Your task to perform on an android device: find snoozed emails in the gmail app Image 0: 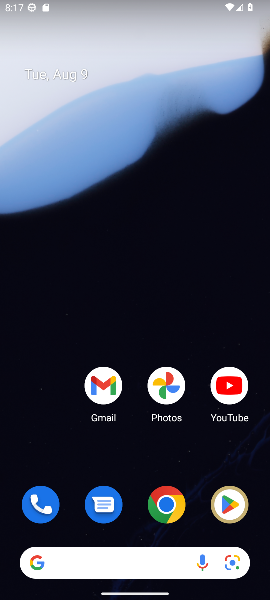
Step 0: click (103, 384)
Your task to perform on an android device: find snoozed emails in the gmail app Image 1: 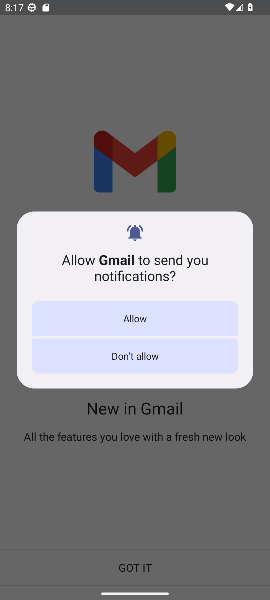
Step 1: click (116, 314)
Your task to perform on an android device: find snoozed emails in the gmail app Image 2: 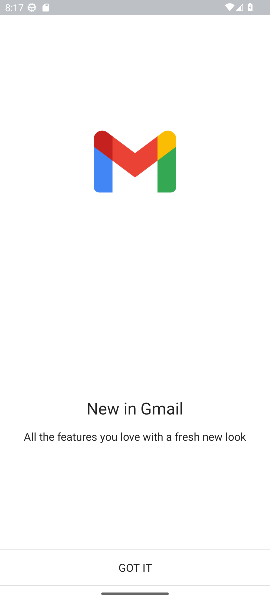
Step 2: click (133, 569)
Your task to perform on an android device: find snoozed emails in the gmail app Image 3: 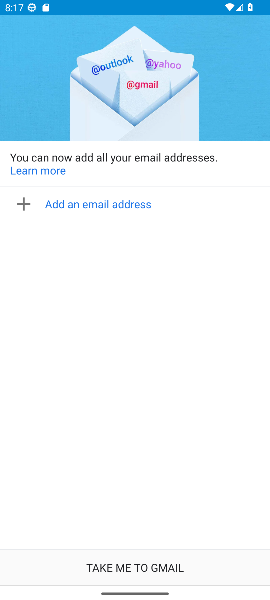
Step 3: click (133, 569)
Your task to perform on an android device: find snoozed emails in the gmail app Image 4: 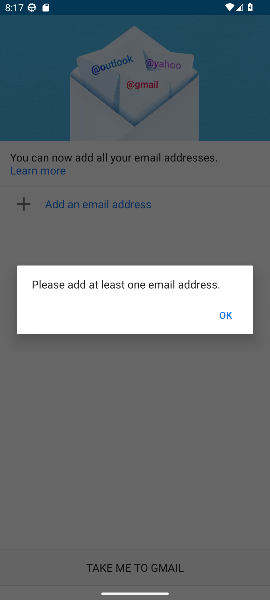
Step 4: click (225, 310)
Your task to perform on an android device: find snoozed emails in the gmail app Image 5: 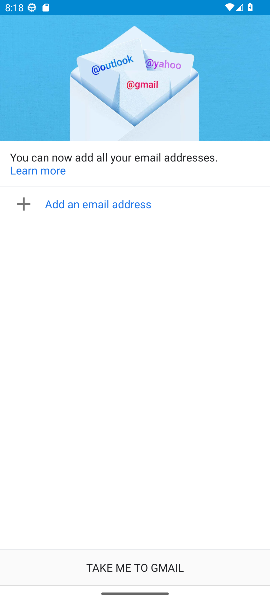
Step 5: click (137, 566)
Your task to perform on an android device: find snoozed emails in the gmail app Image 6: 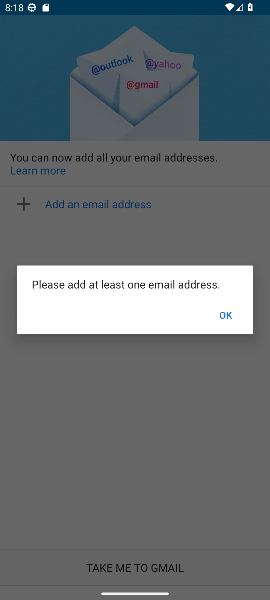
Step 6: click (226, 314)
Your task to perform on an android device: find snoozed emails in the gmail app Image 7: 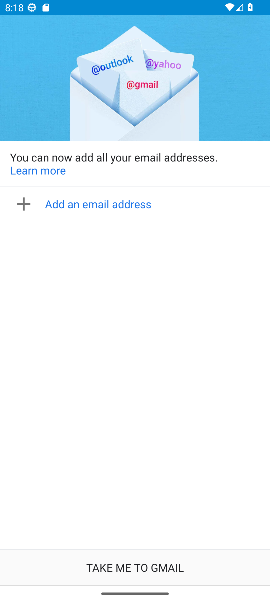
Step 7: task complete